Your task to perform on an android device: snooze an email in the gmail app Image 0: 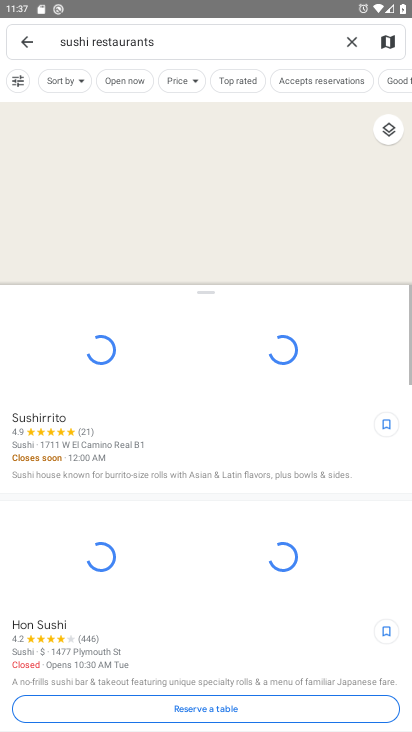
Step 0: press home button
Your task to perform on an android device: snooze an email in the gmail app Image 1: 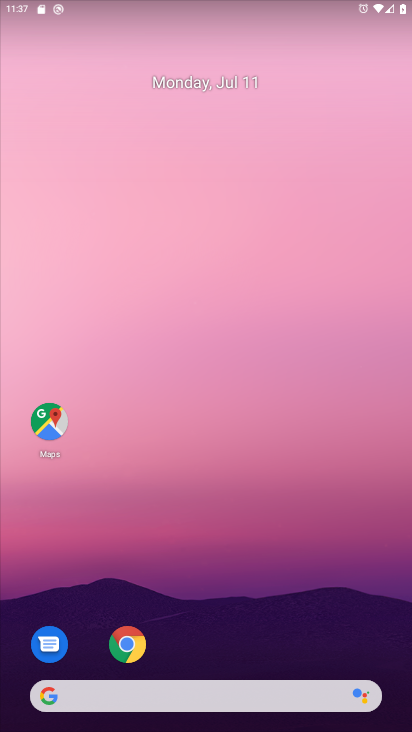
Step 1: drag from (328, 543) to (325, 92)
Your task to perform on an android device: snooze an email in the gmail app Image 2: 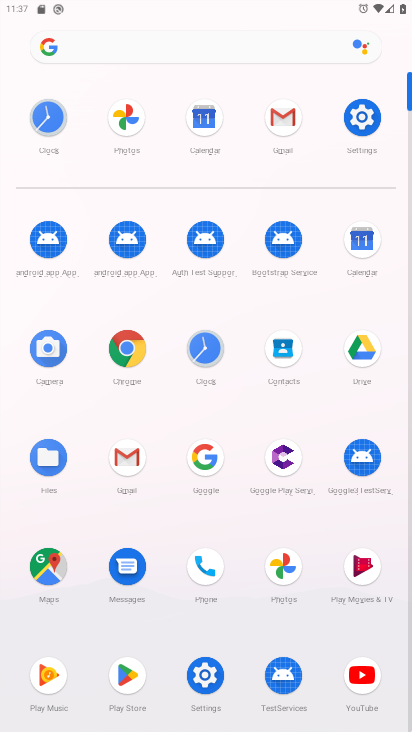
Step 2: click (284, 119)
Your task to perform on an android device: snooze an email in the gmail app Image 3: 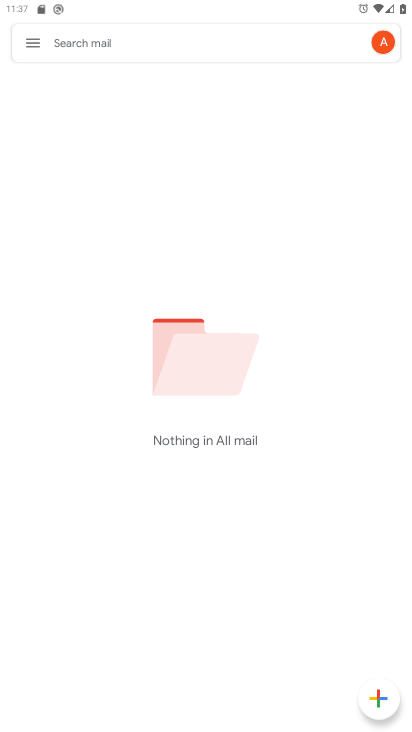
Step 3: task complete